Your task to perform on an android device: manage bookmarks in the chrome app Image 0: 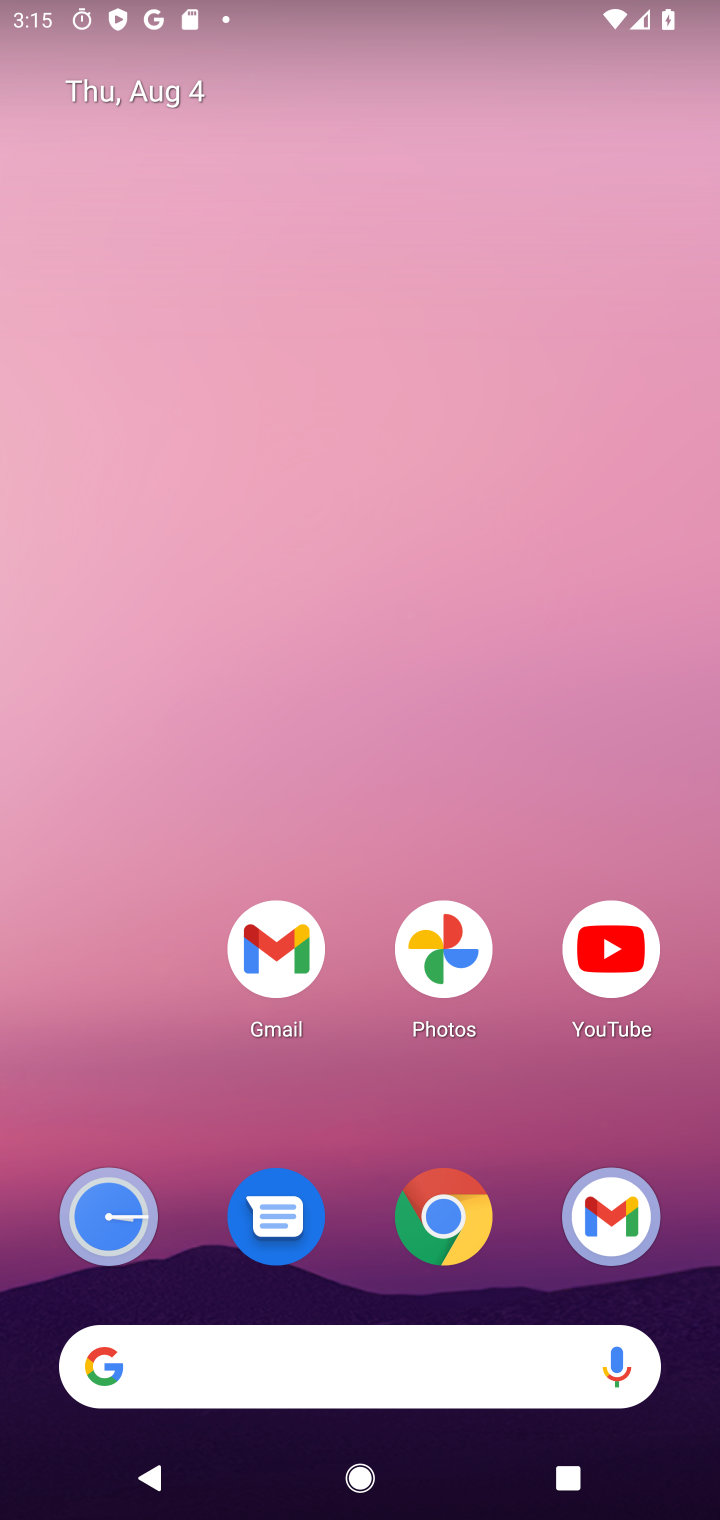
Step 0: click (470, 1196)
Your task to perform on an android device: manage bookmarks in the chrome app Image 1: 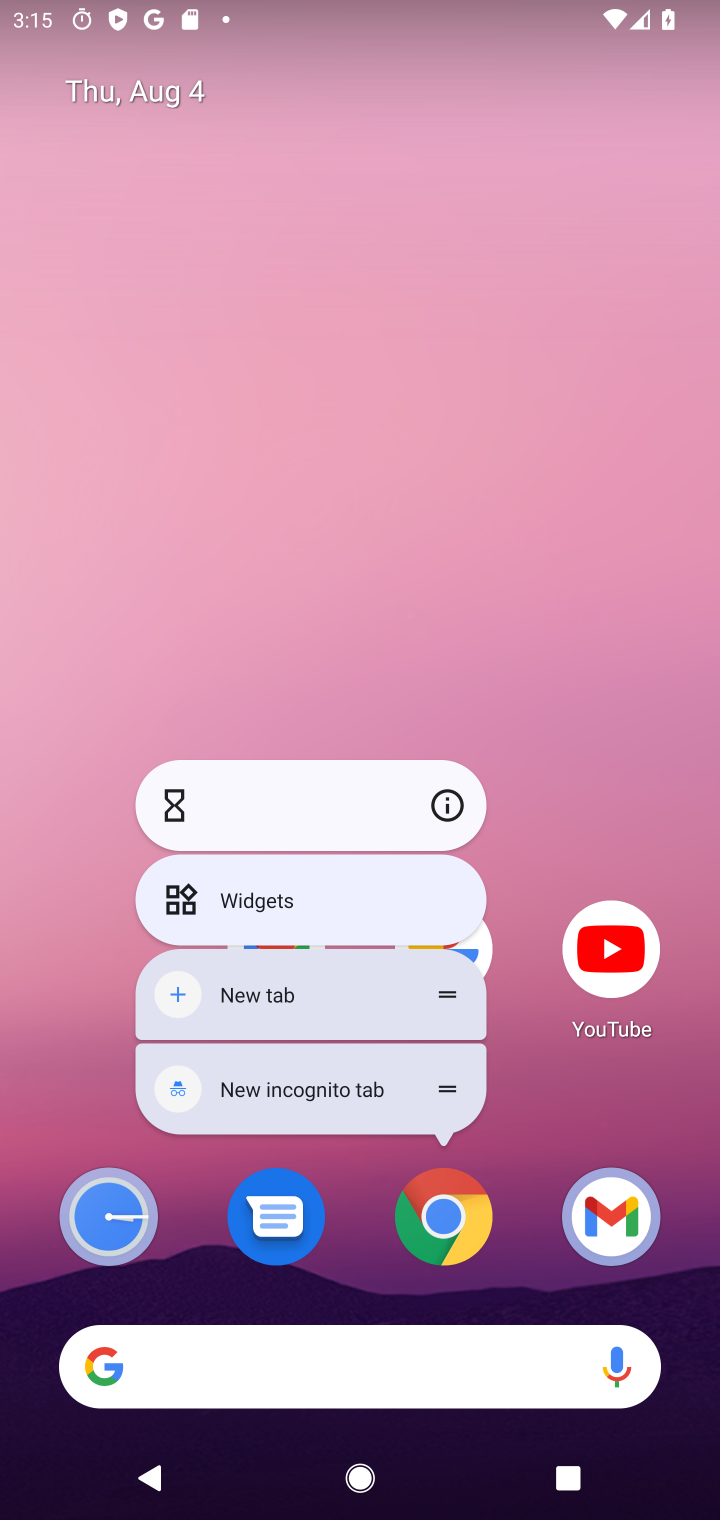
Step 1: click (434, 1222)
Your task to perform on an android device: manage bookmarks in the chrome app Image 2: 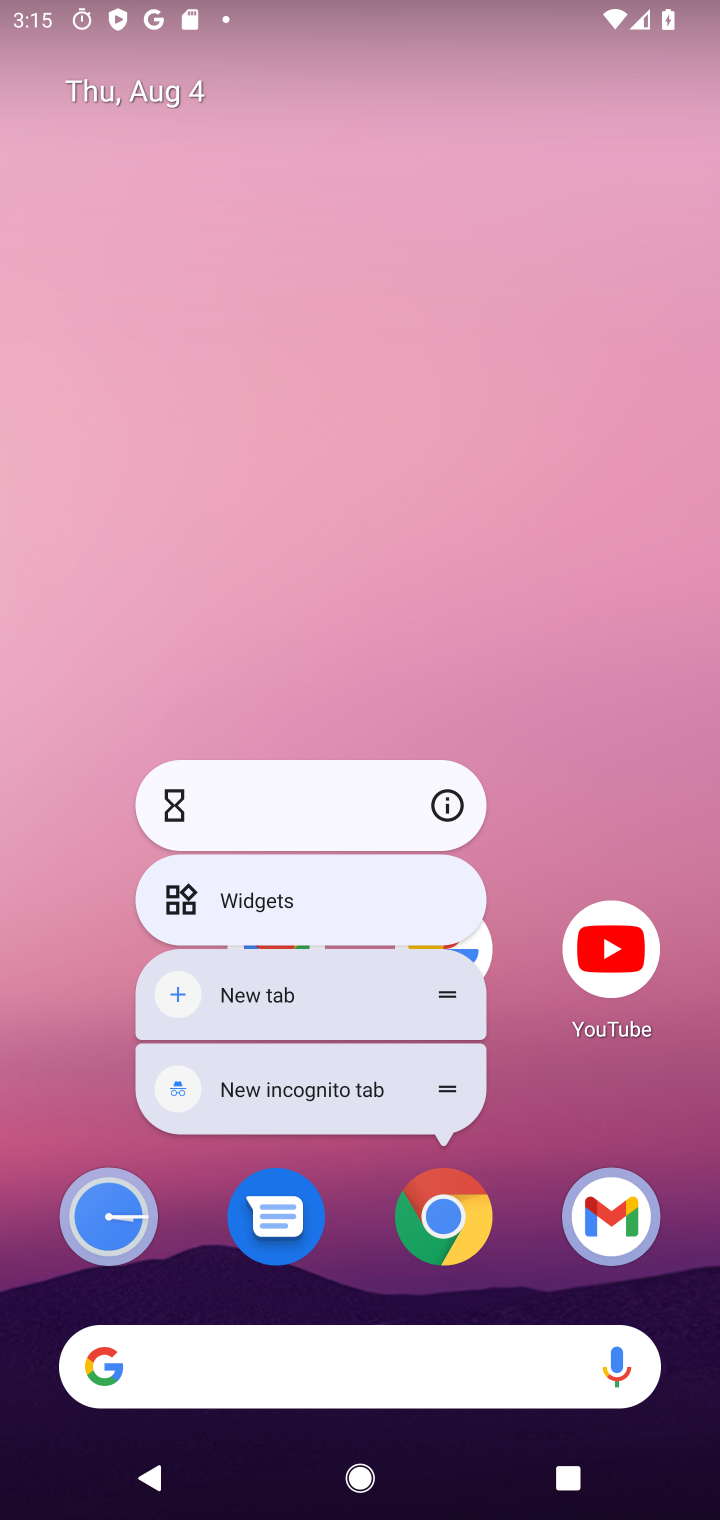
Step 2: click (440, 1230)
Your task to perform on an android device: manage bookmarks in the chrome app Image 3: 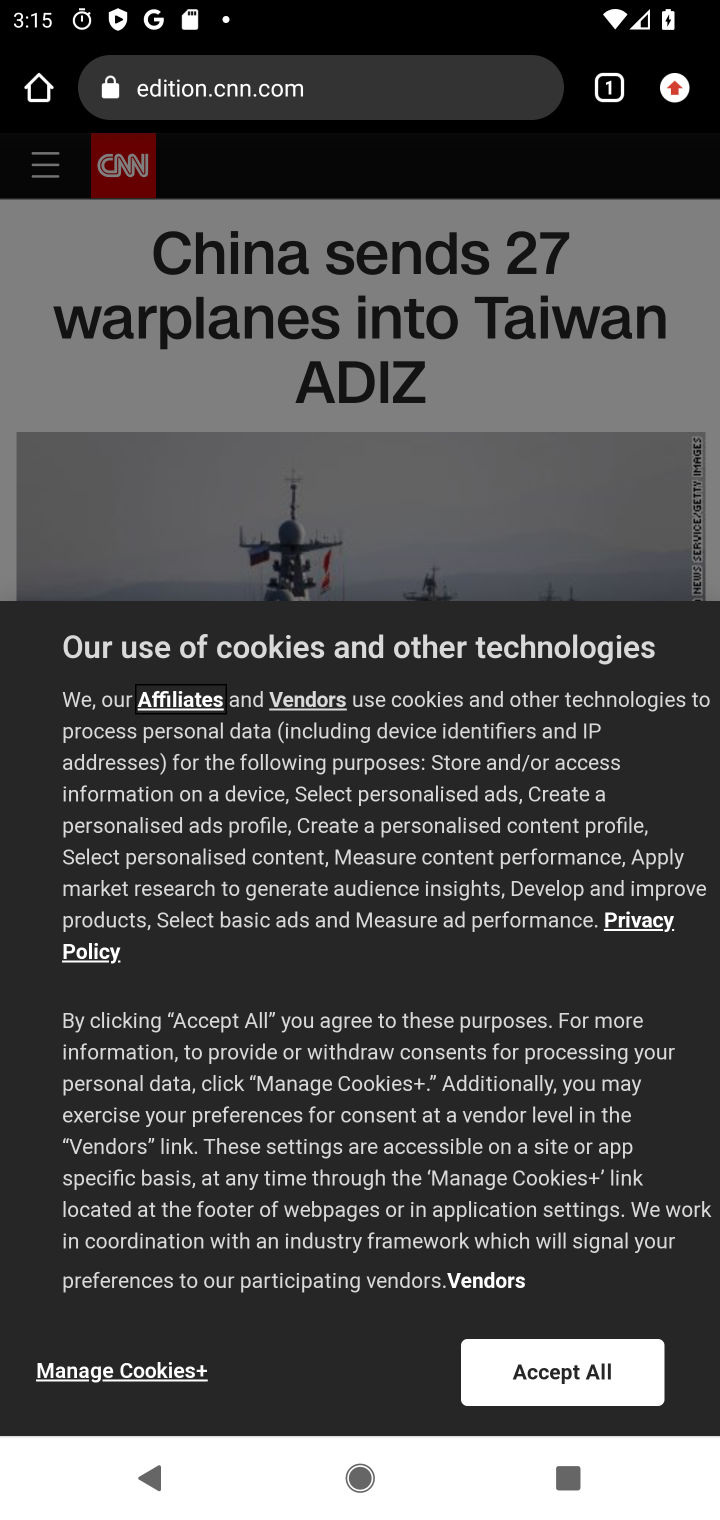
Step 3: drag from (671, 93) to (456, 585)
Your task to perform on an android device: manage bookmarks in the chrome app Image 4: 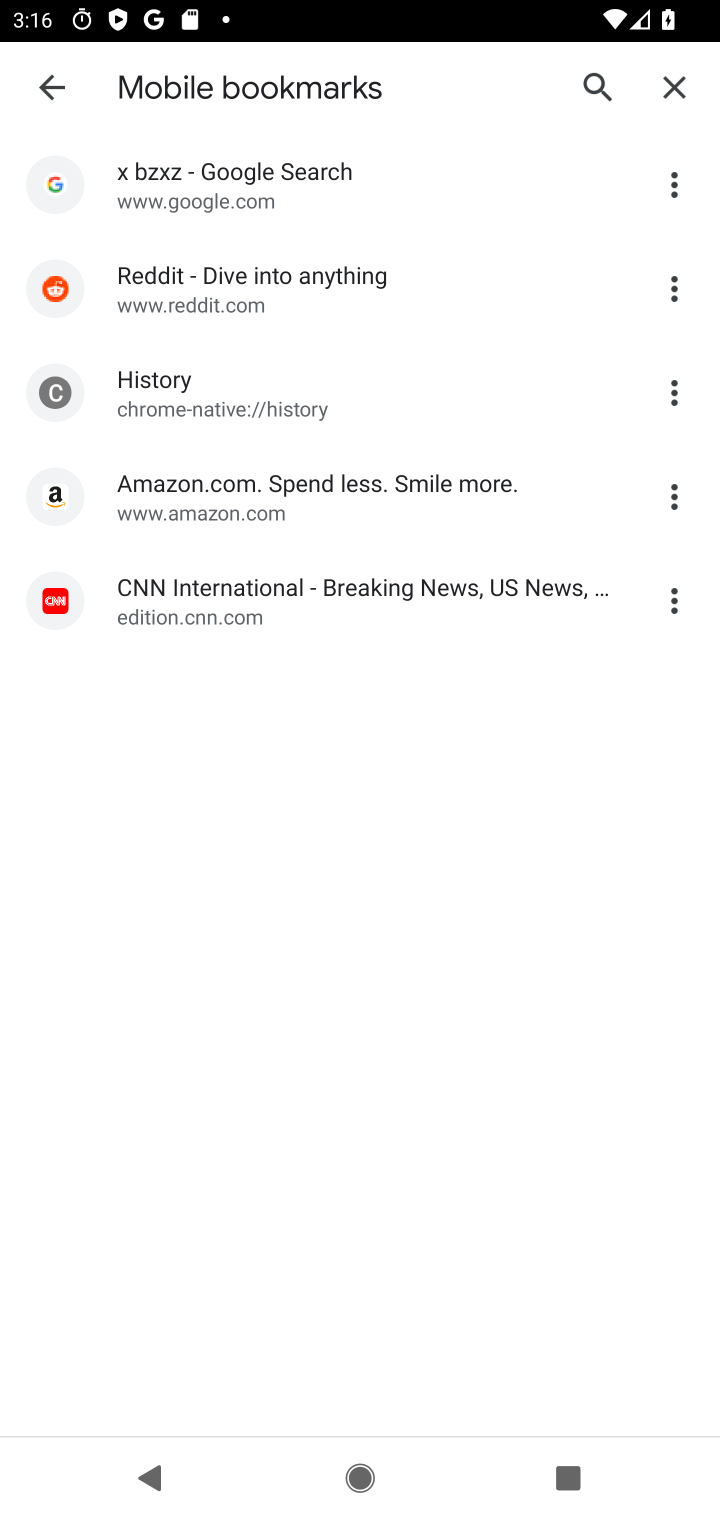
Step 4: click (678, 281)
Your task to perform on an android device: manage bookmarks in the chrome app Image 5: 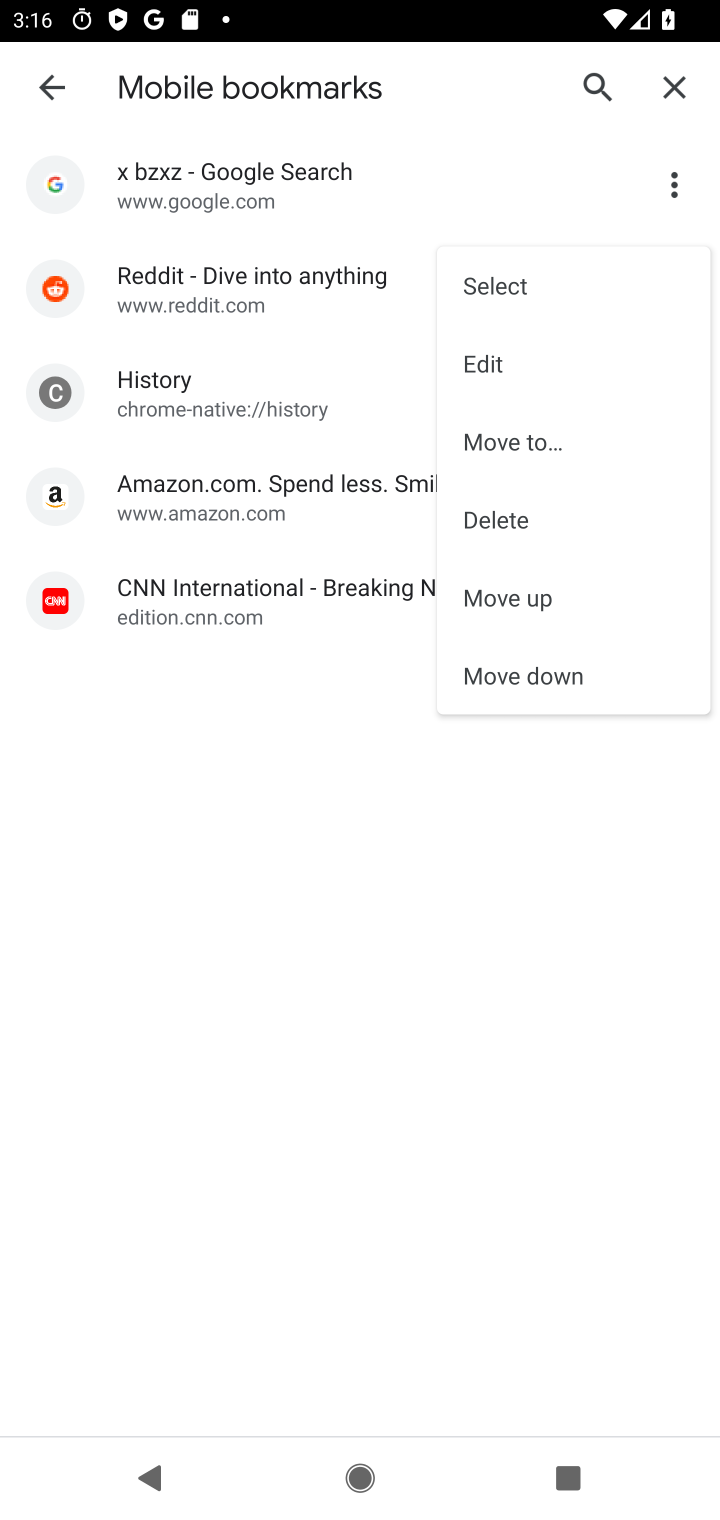
Step 5: click (522, 512)
Your task to perform on an android device: manage bookmarks in the chrome app Image 6: 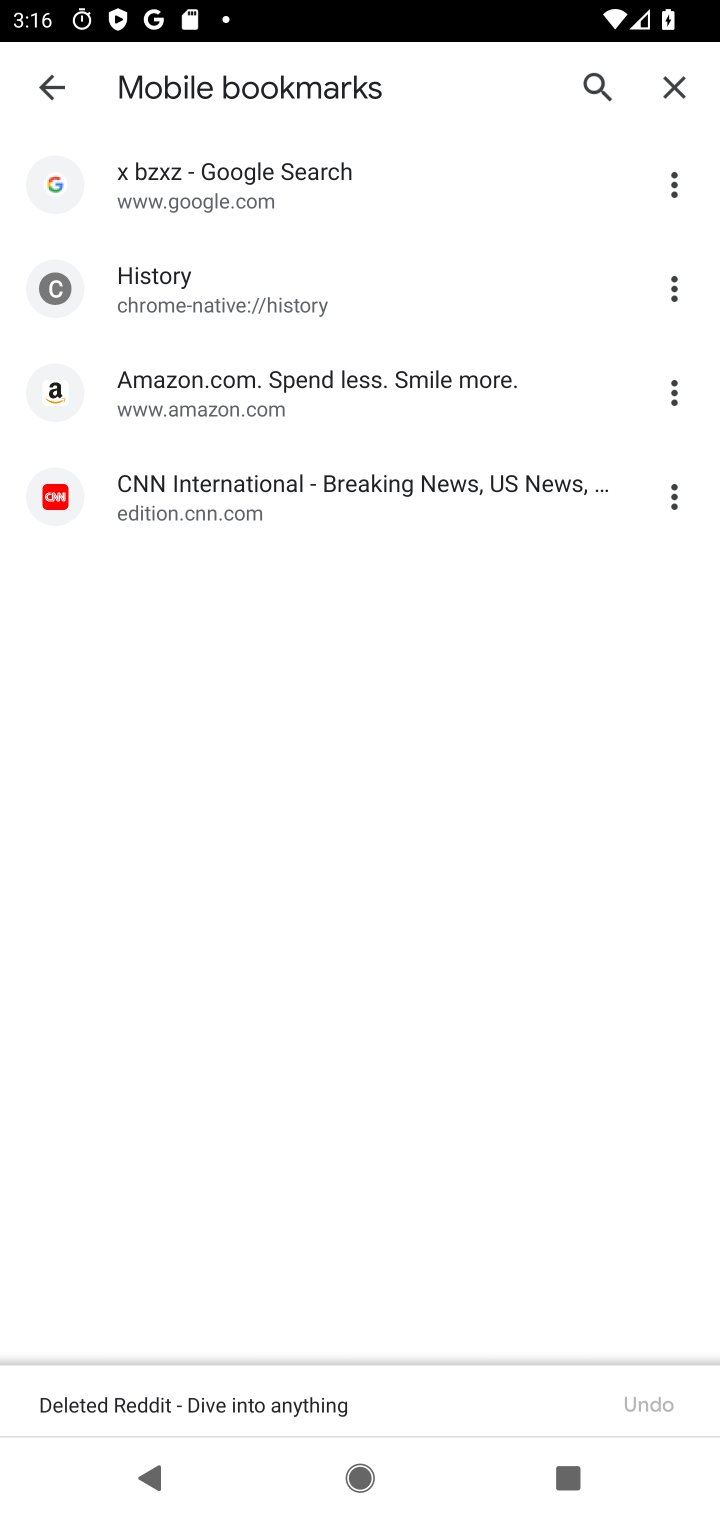
Step 6: task complete